Your task to perform on an android device: What is the news today? Image 0: 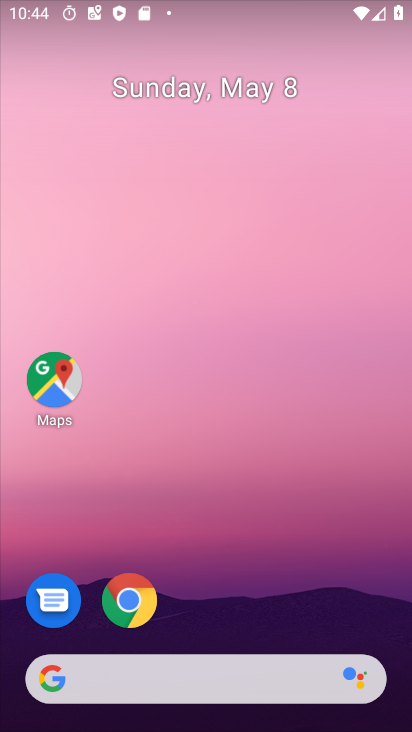
Step 0: click (92, 694)
Your task to perform on an android device: What is the news today? Image 1: 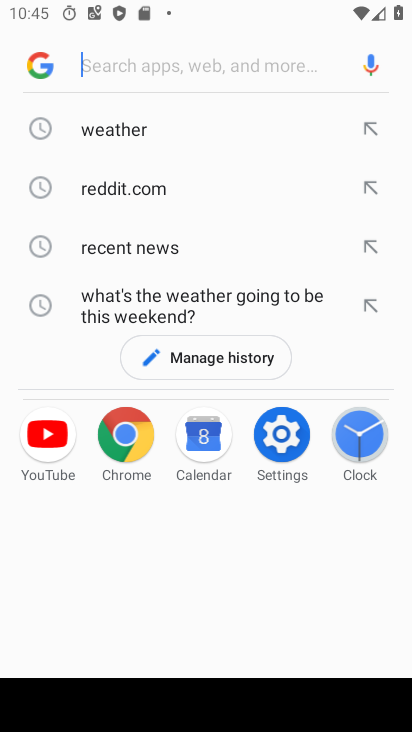
Step 1: click (233, 39)
Your task to perform on an android device: What is the news today? Image 2: 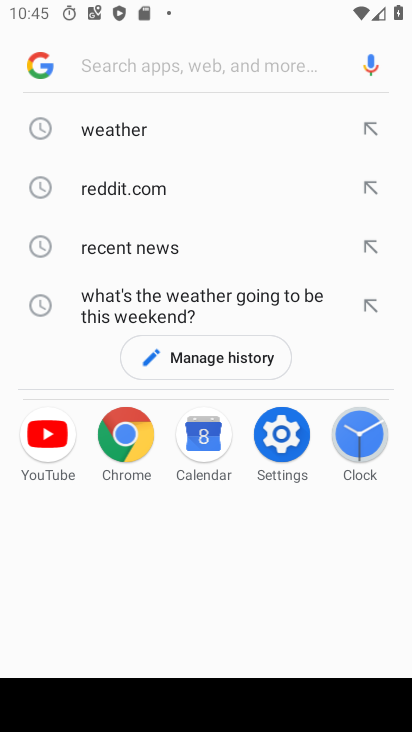
Step 2: click (233, 39)
Your task to perform on an android device: What is the news today? Image 3: 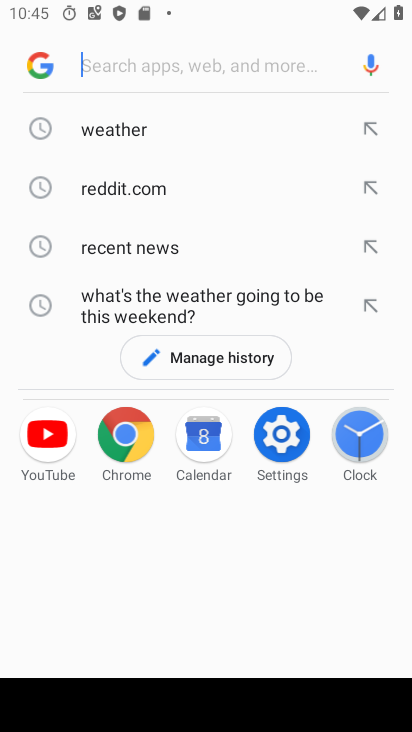
Step 3: type "news "
Your task to perform on an android device: What is the news today? Image 4: 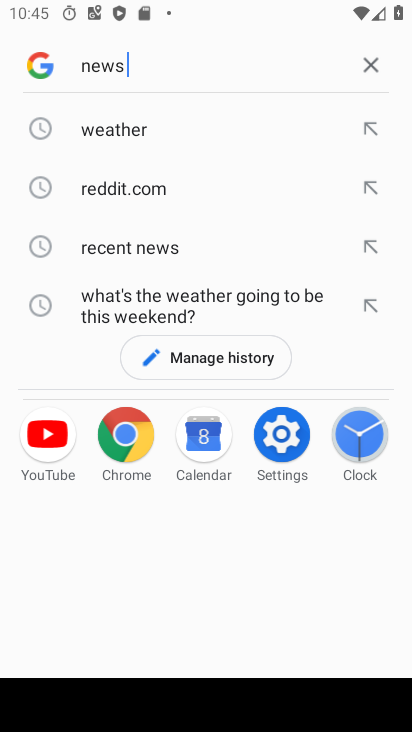
Step 4: type ""
Your task to perform on an android device: What is the news today? Image 5: 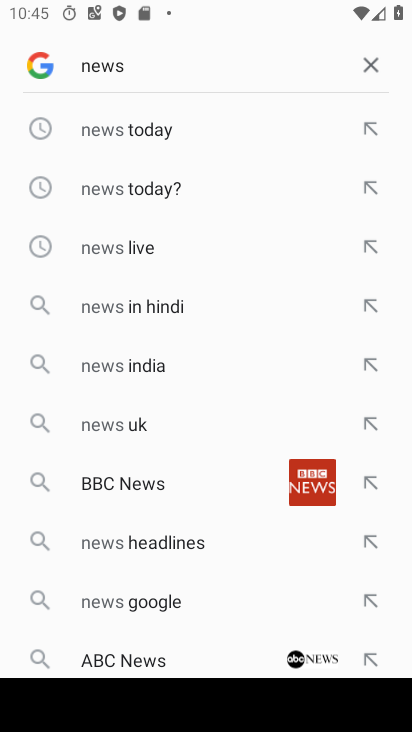
Step 5: click (111, 134)
Your task to perform on an android device: What is the news today? Image 6: 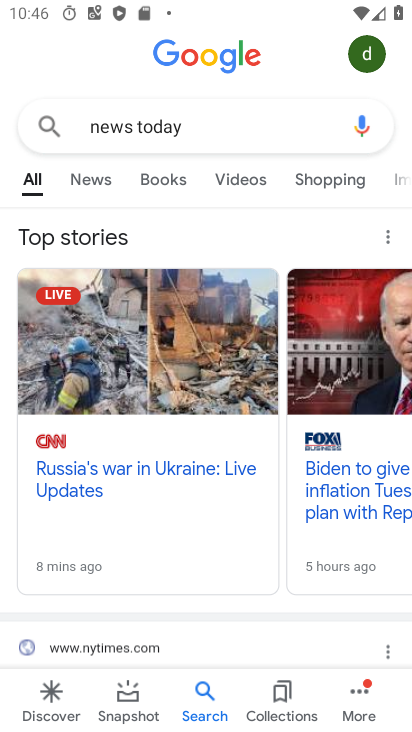
Step 6: task complete